Your task to perform on an android device: turn pop-ups off in chrome Image 0: 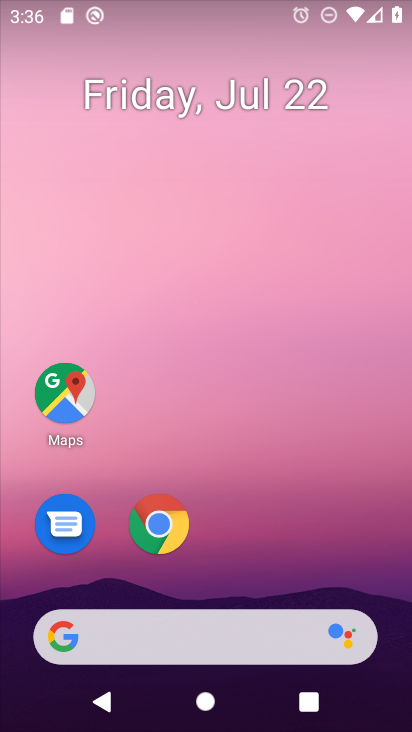
Step 0: click (60, 403)
Your task to perform on an android device: turn pop-ups off in chrome Image 1: 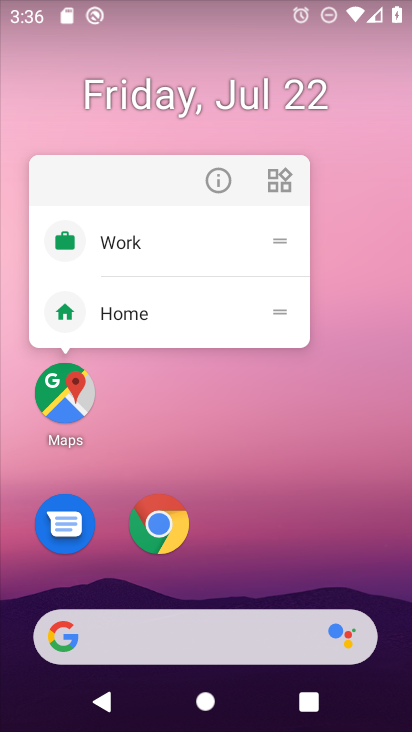
Step 1: click (60, 401)
Your task to perform on an android device: turn pop-ups off in chrome Image 2: 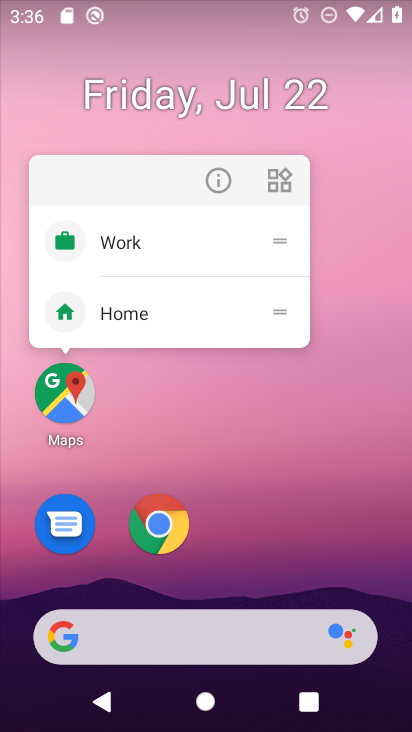
Step 2: click (60, 402)
Your task to perform on an android device: turn pop-ups off in chrome Image 3: 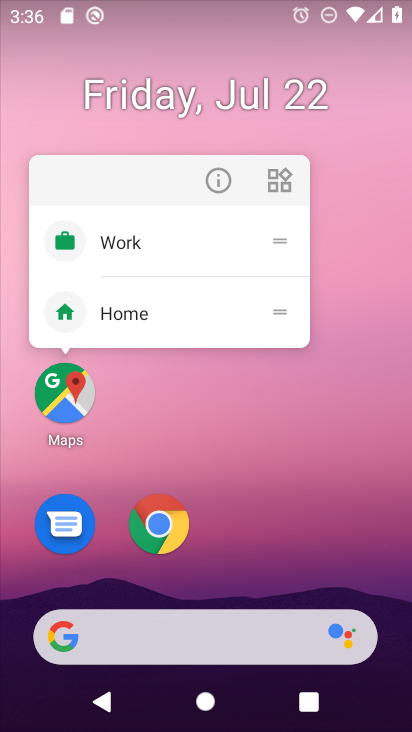
Step 3: click (60, 402)
Your task to perform on an android device: turn pop-ups off in chrome Image 4: 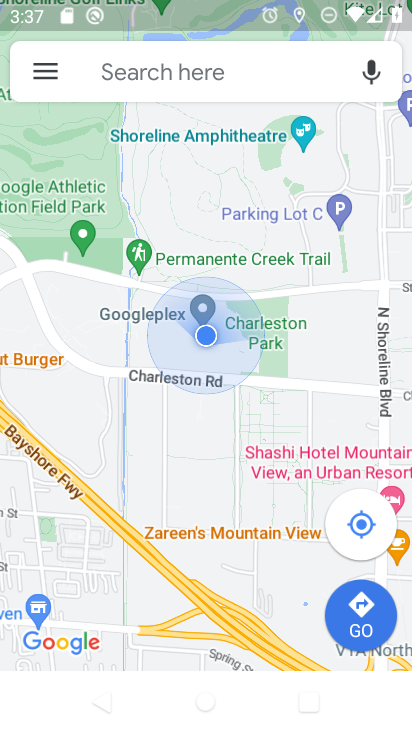
Step 4: press home button
Your task to perform on an android device: turn pop-ups off in chrome Image 5: 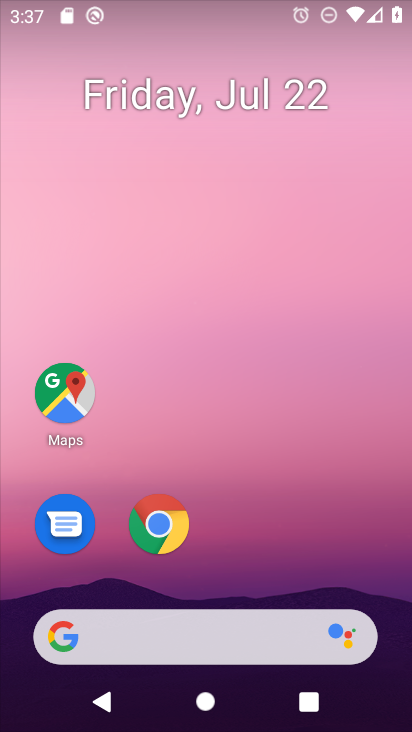
Step 5: click (165, 528)
Your task to perform on an android device: turn pop-ups off in chrome Image 6: 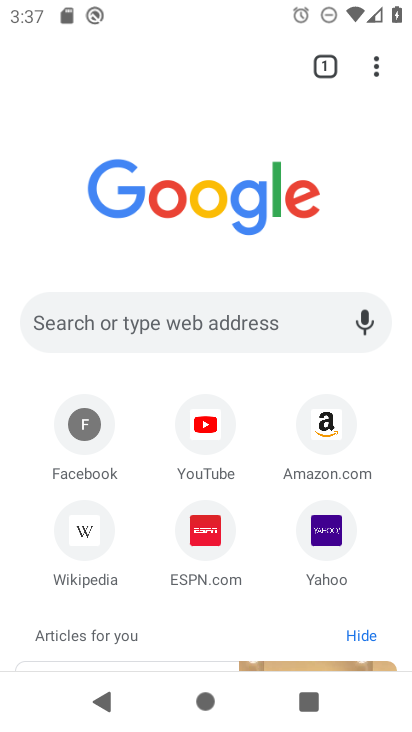
Step 6: drag from (377, 68) to (178, 552)
Your task to perform on an android device: turn pop-ups off in chrome Image 7: 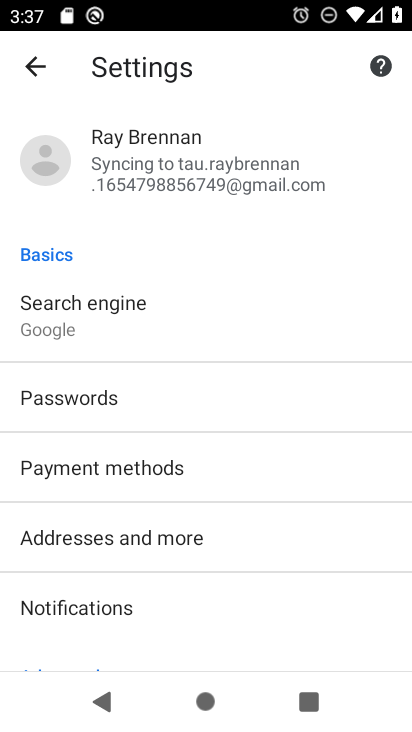
Step 7: drag from (160, 532) to (276, 131)
Your task to perform on an android device: turn pop-ups off in chrome Image 8: 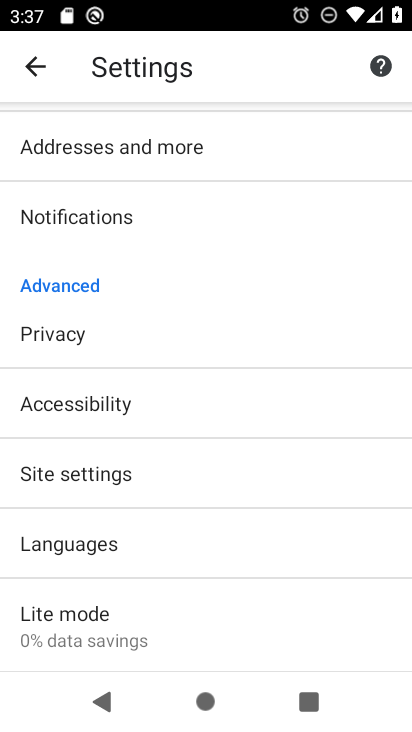
Step 8: click (108, 482)
Your task to perform on an android device: turn pop-ups off in chrome Image 9: 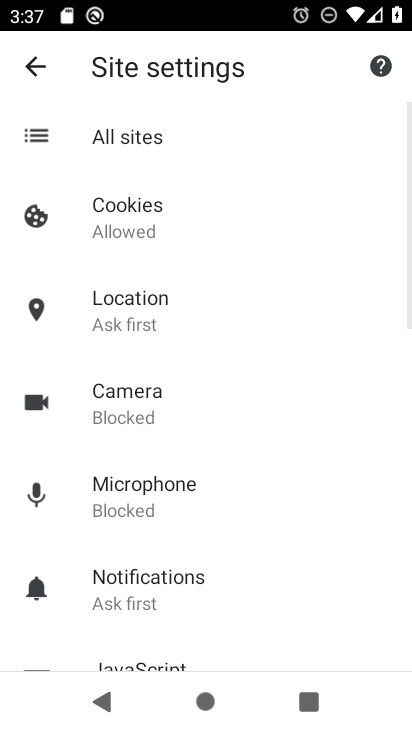
Step 9: drag from (230, 563) to (306, 143)
Your task to perform on an android device: turn pop-ups off in chrome Image 10: 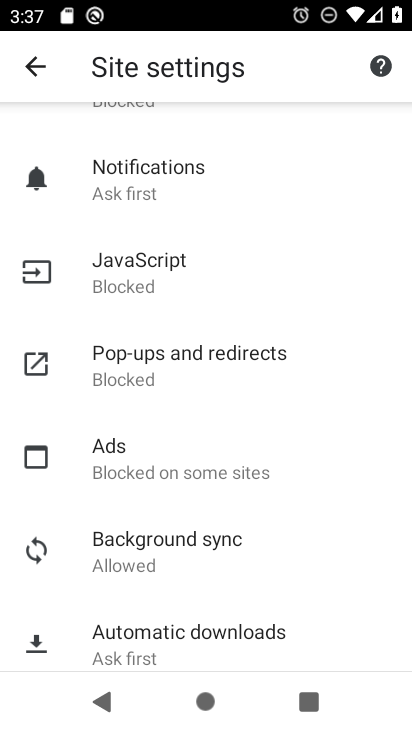
Step 10: click (178, 370)
Your task to perform on an android device: turn pop-ups off in chrome Image 11: 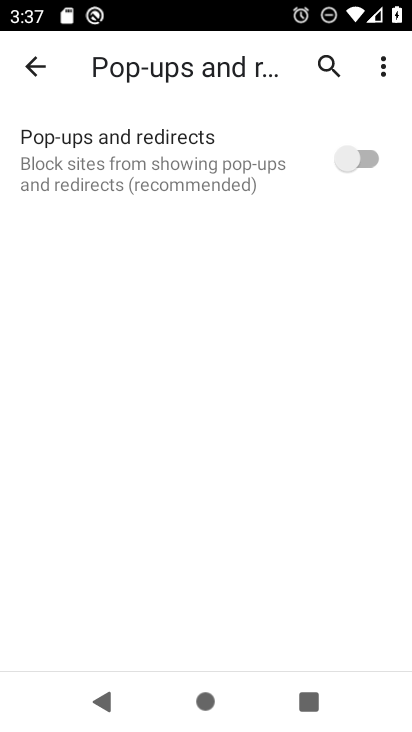
Step 11: task complete